Your task to perform on an android device: clear history in the chrome app Image 0: 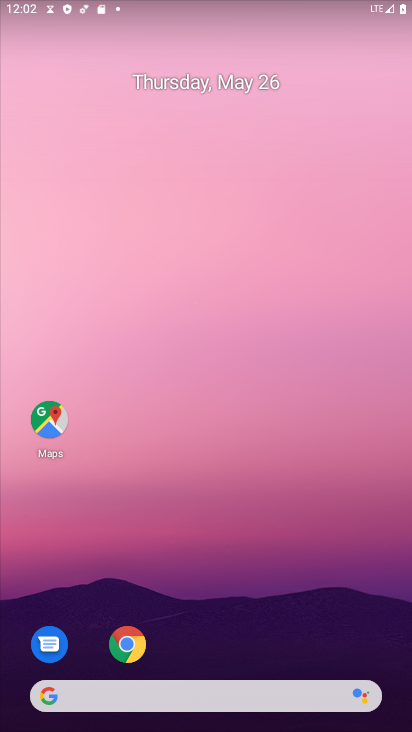
Step 0: click (126, 644)
Your task to perform on an android device: clear history in the chrome app Image 1: 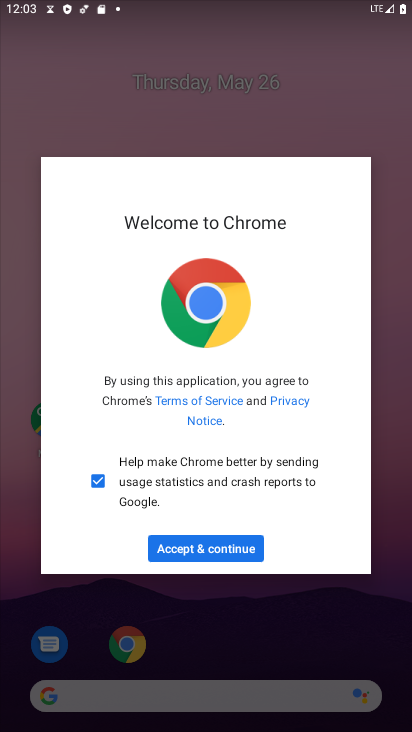
Step 1: click (208, 547)
Your task to perform on an android device: clear history in the chrome app Image 2: 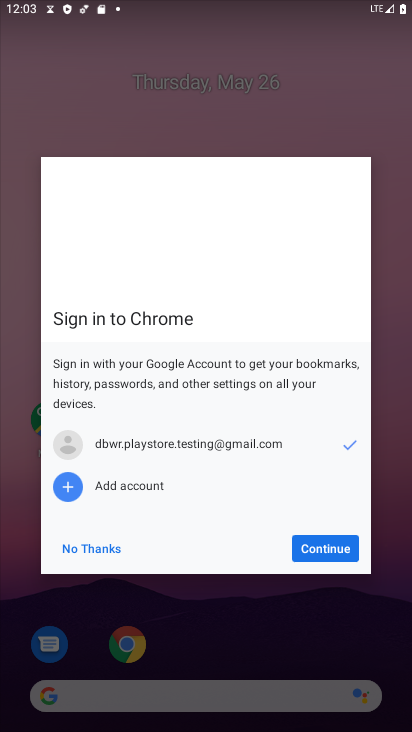
Step 2: click (330, 547)
Your task to perform on an android device: clear history in the chrome app Image 3: 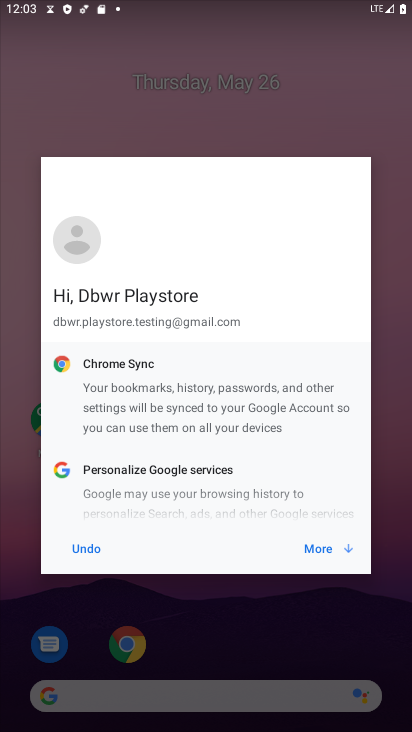
Step 3: click (330, 547)
Your task to perform on an android device: clear history in the chrome app Image 4: 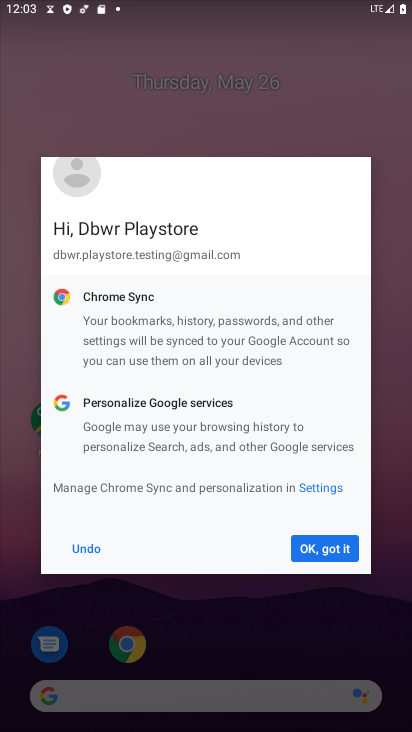
Step 4: click (330, 547)
Your task to perform on an android device: clear history in the chrome app Image 5: 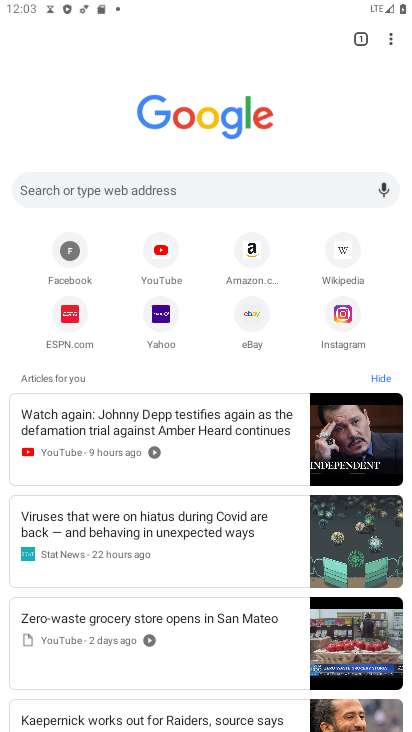
Step 5: click (391, 38)
Your task to perform on an android device: clear history in the chrome app Image 6: 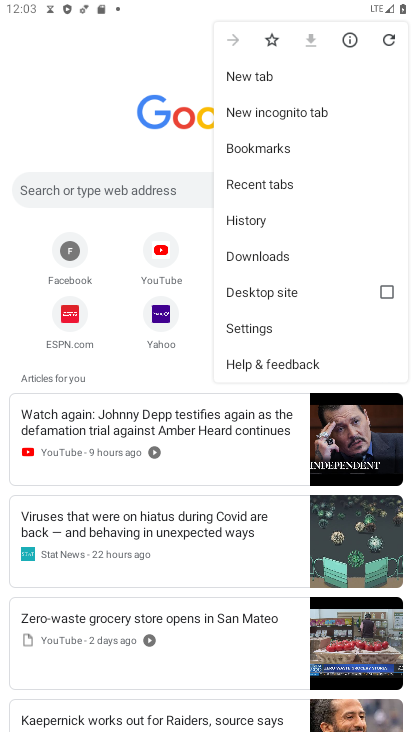
Step 6: click (256, 220)
Your task to perform on an android device: clear history in the chrome app Image 7: 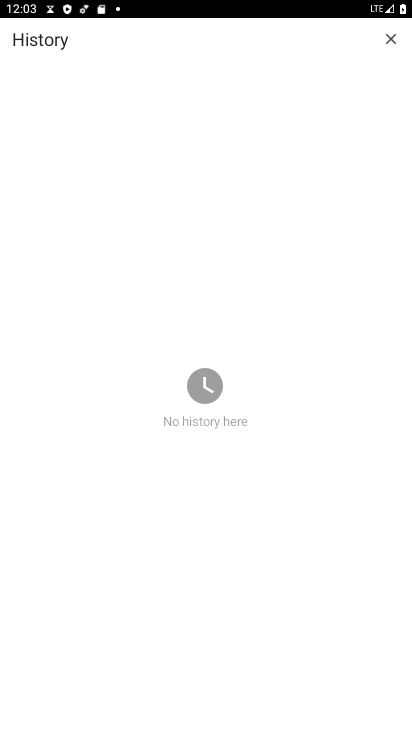
Step 7: task complete